Your task to perform on an android device: change the clock display to analog Image 0: 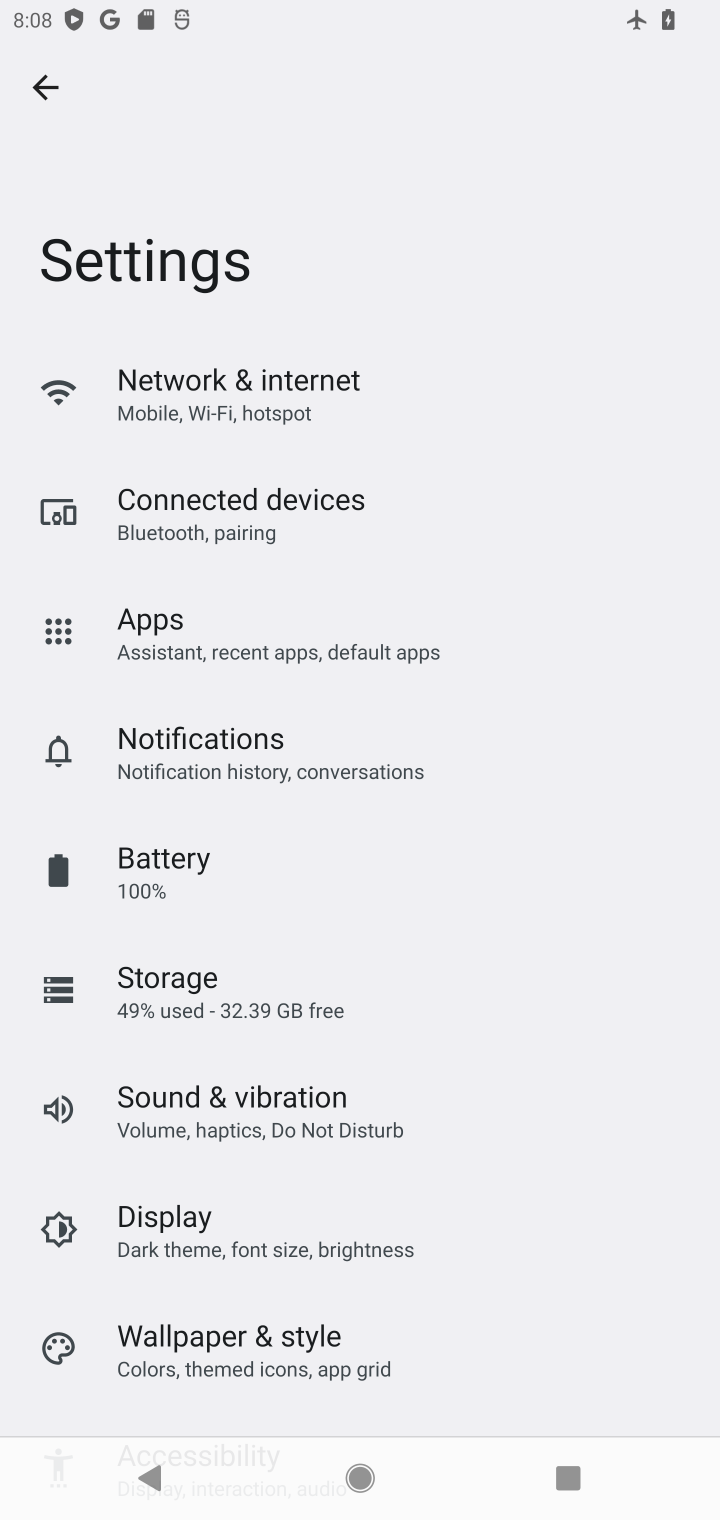
Step 0: press home button
Your task to perform on an android device: change the clock display to analog Image 1: 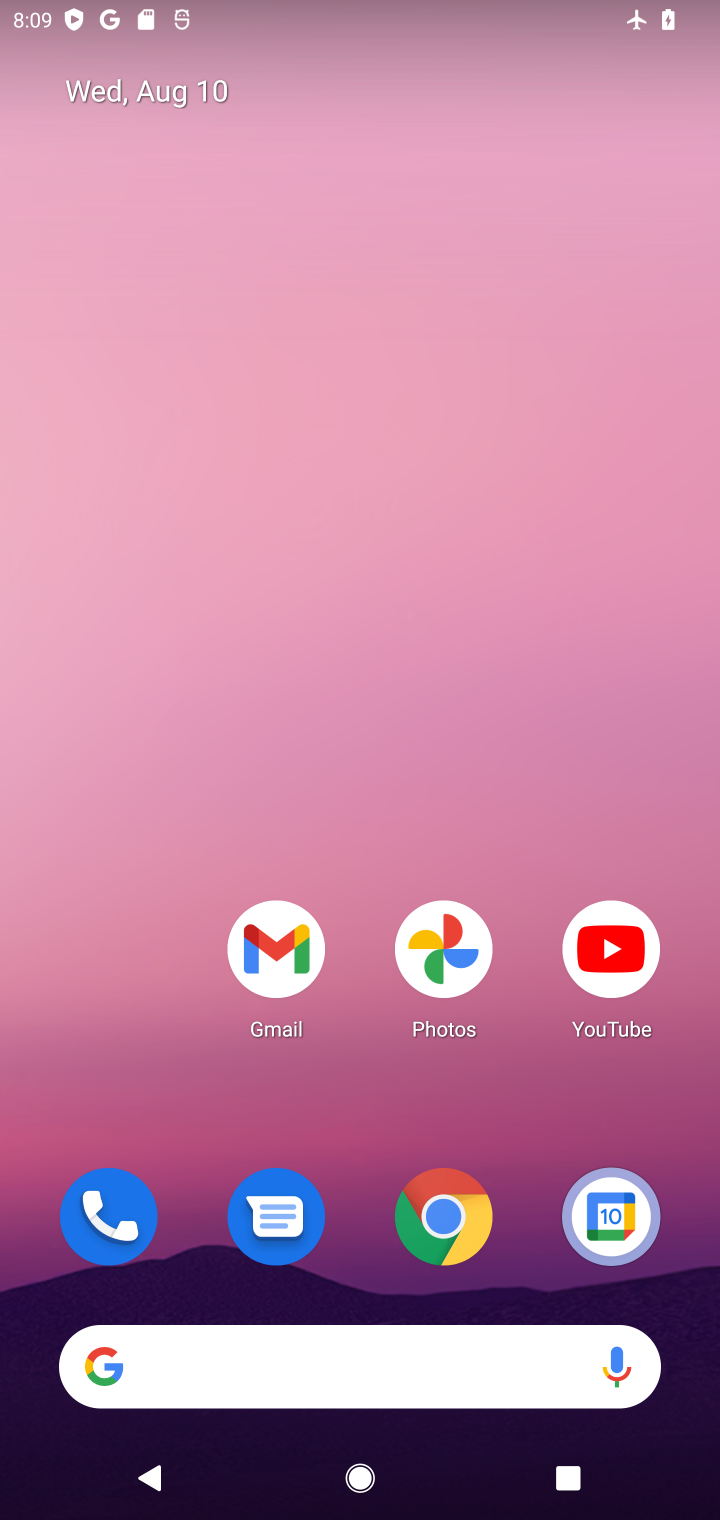
Step 1: drag from (215, 1090) to (693, 167)
Your task to perform on an android device: change the clock display to analog Image 2: 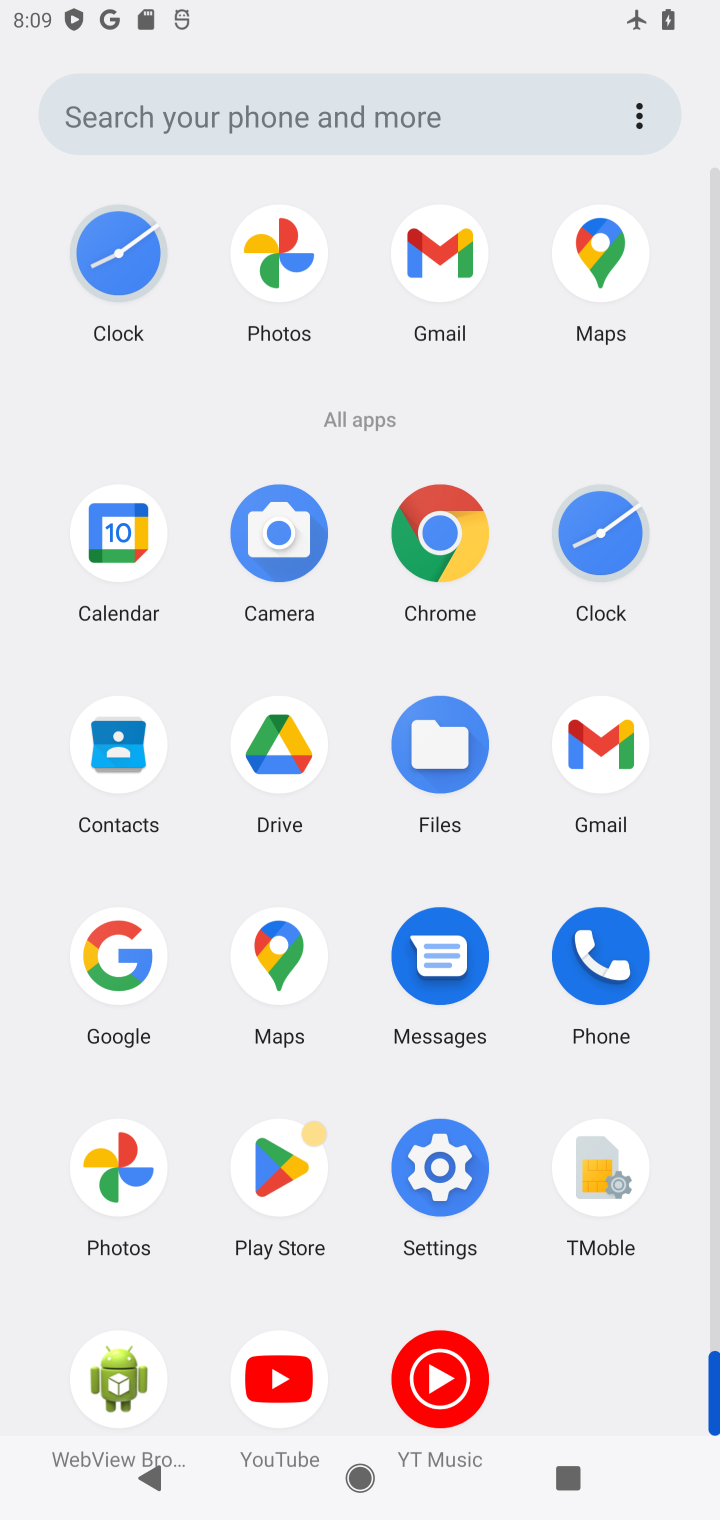
Step 2: click (616, 526)
Your task to perform on an android device: change the clock display to analog Image 3: 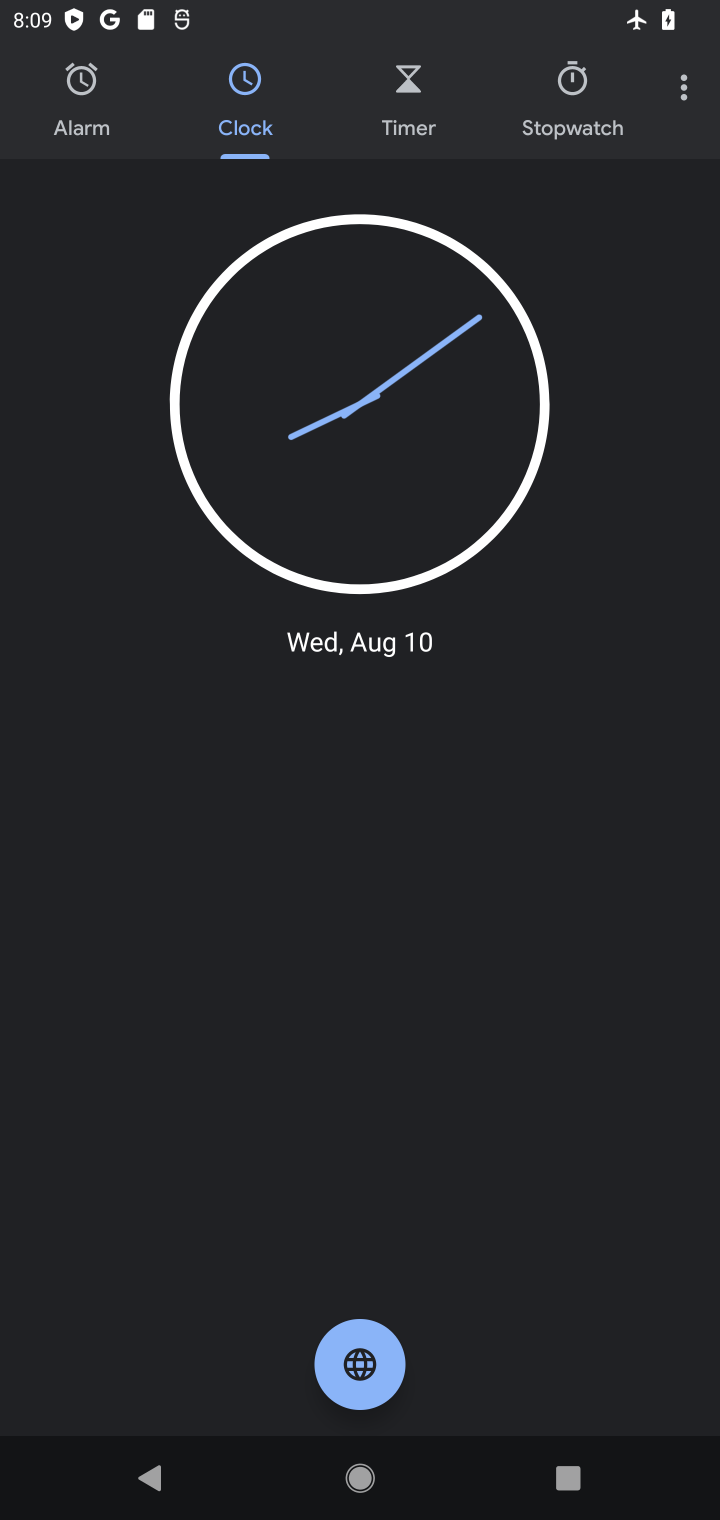
Step 3: click (681, 82)
Your task to perform on an android device: change the clock display to analog Image 4: 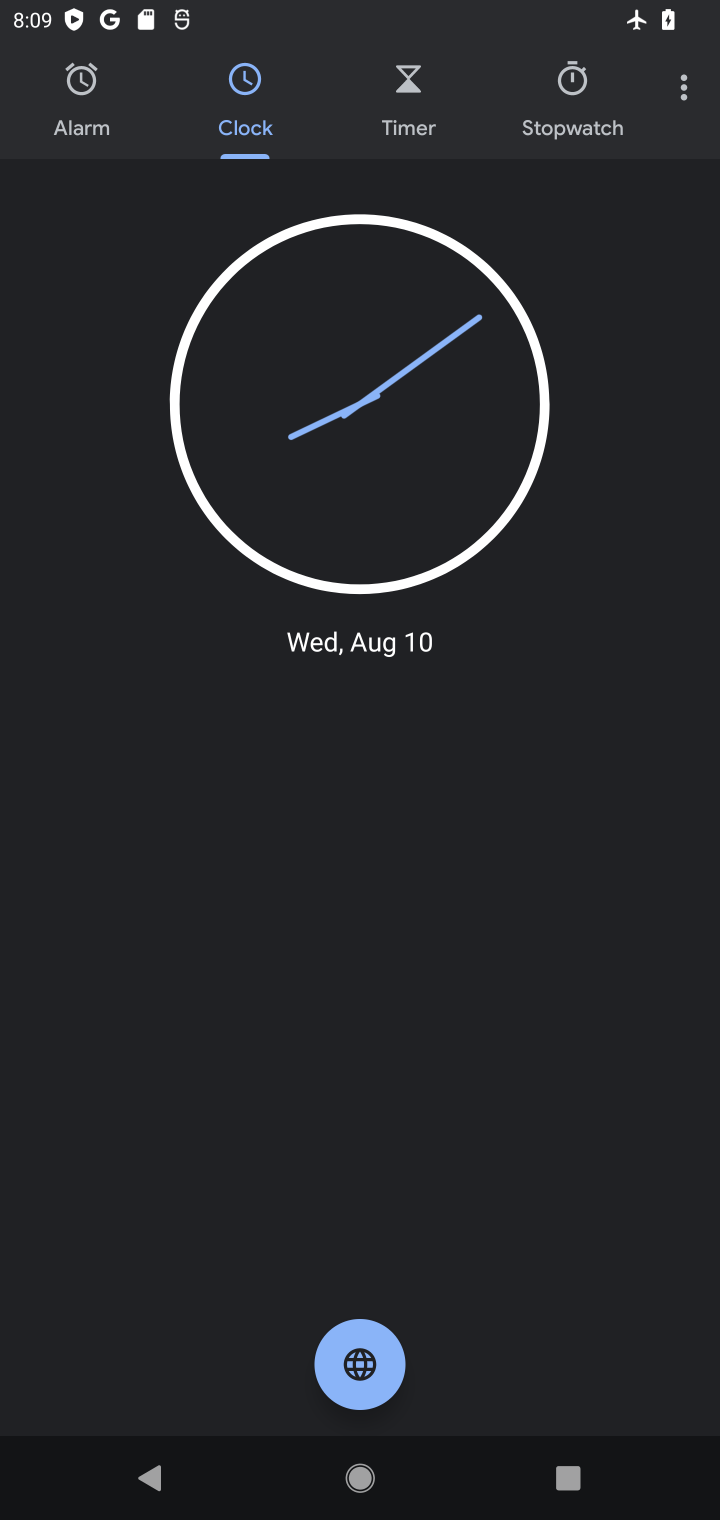
Step 4: click (685, 83)
Your task to perform on an android device: change the clock display to analog Image 5: 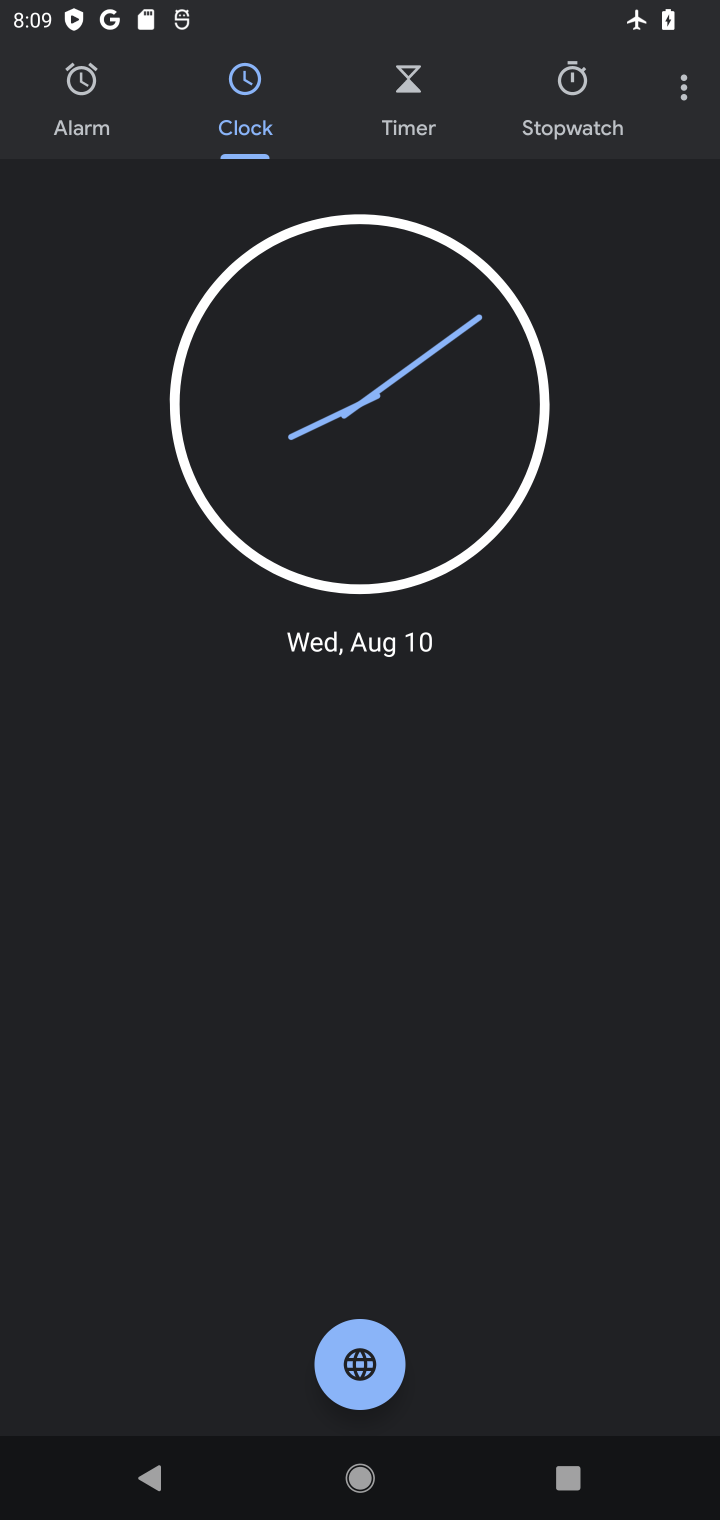
Step 5: click (682, 87)
Your task to perform on an android device: change the clock display to analog Image 6: 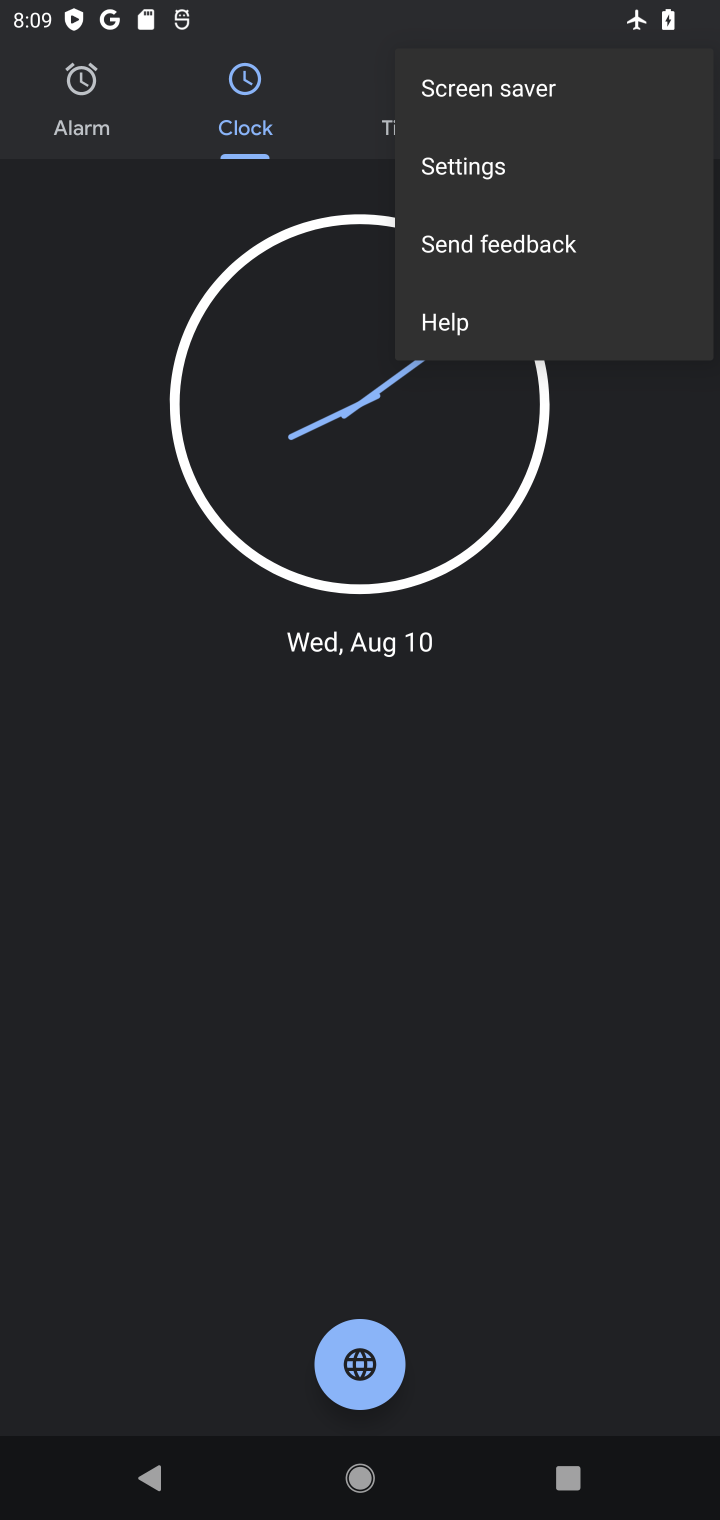
Step 6: click (517, 173)
Your task to perform on an android device: change the clock display to analog Image 7: 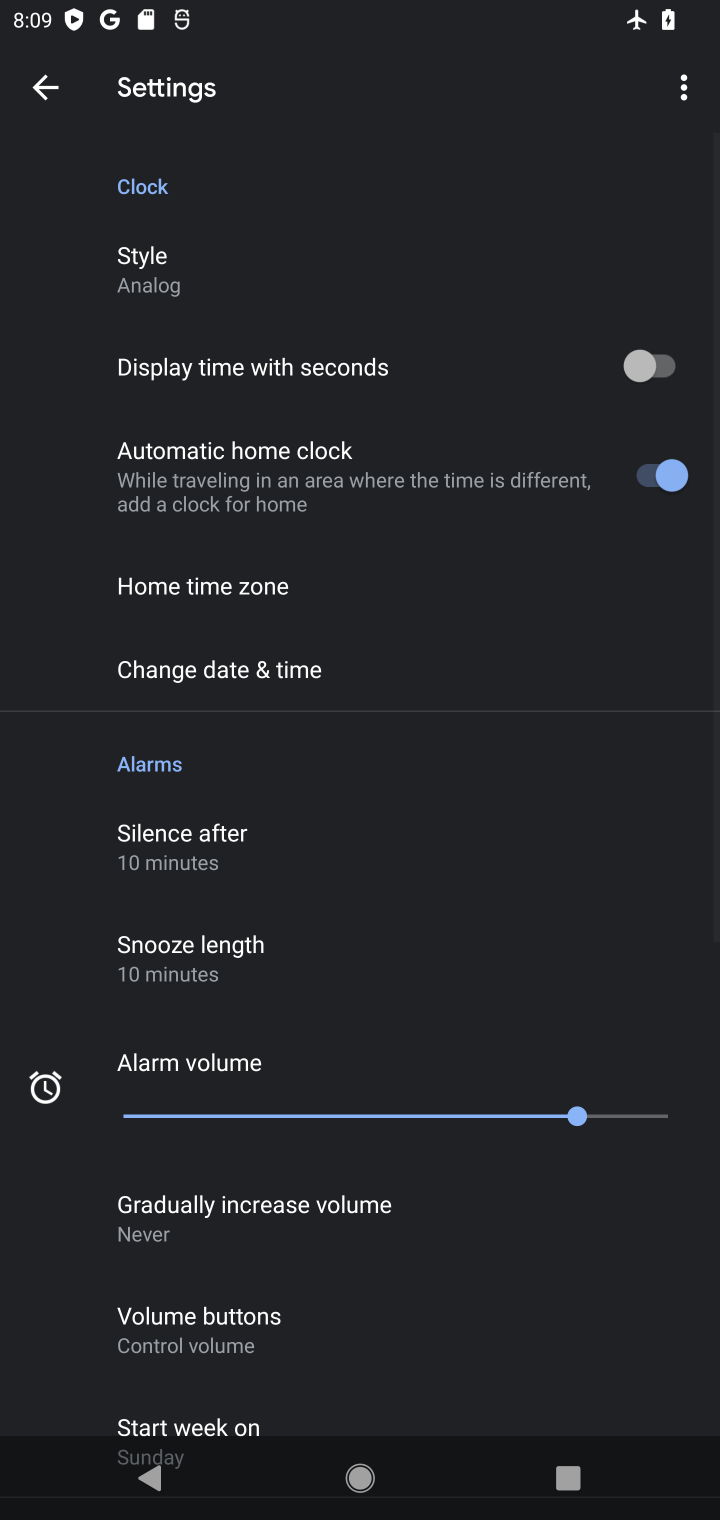
Step 7: click (517, 173)
Your task to perform on an android device: change the clock display to analog Image 8: 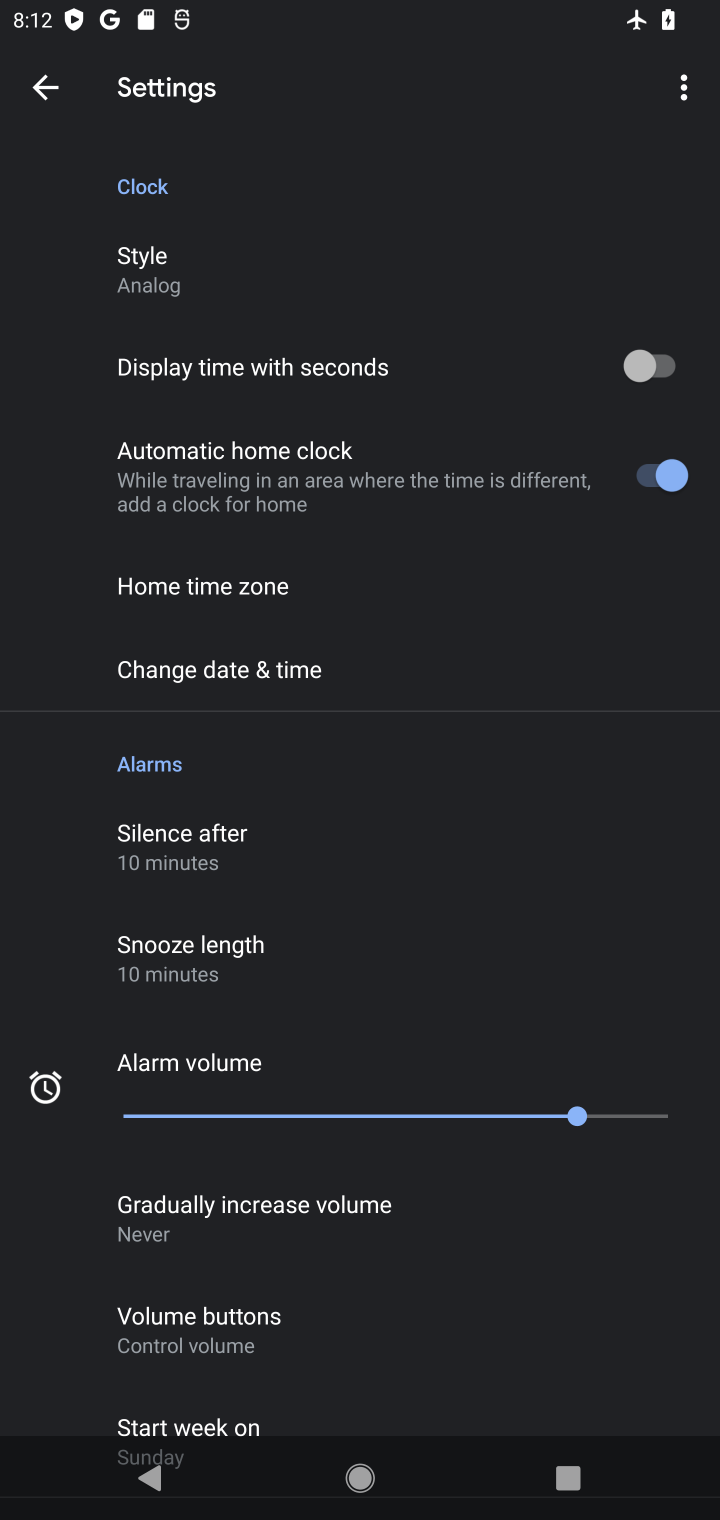
Step 8: task complete